Your task to perform on an android device: Open the calendar app, open the side menu, and click the "Day" option Image 0: 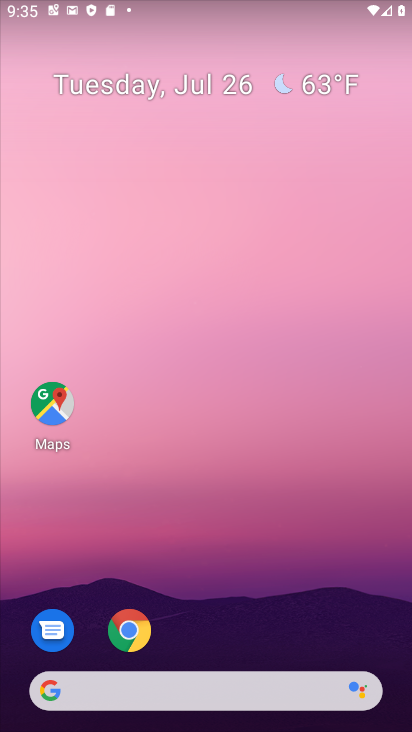
Step 0: drag from (210, 647) to (234, 28)
Your task to perform on an android device: Open the calendar app, open the side menu, and click the "Day" option Image 1: 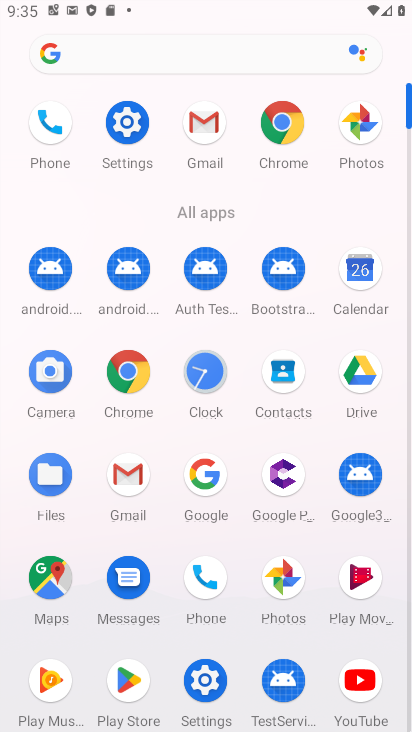
Step 1: click (359, 264)
Your task to perform on an android device: Open the calendar app, open the side menu, and click the "Day" option Image 2: 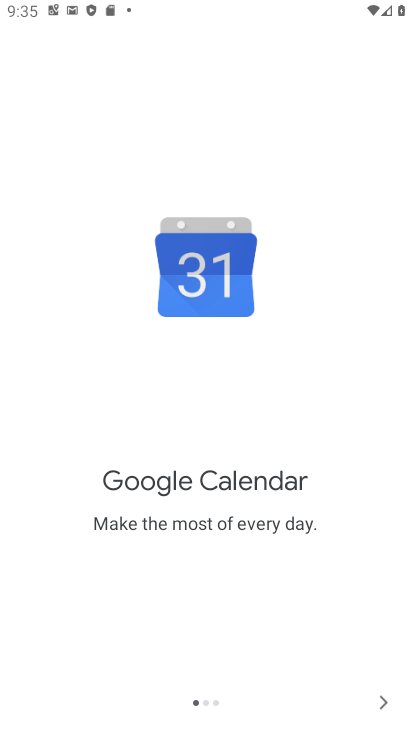
Step 2: click (377, 698)
Your task to perform on an android device: Open the calendar app, open the side menu, and click the "Day" option Image 3: 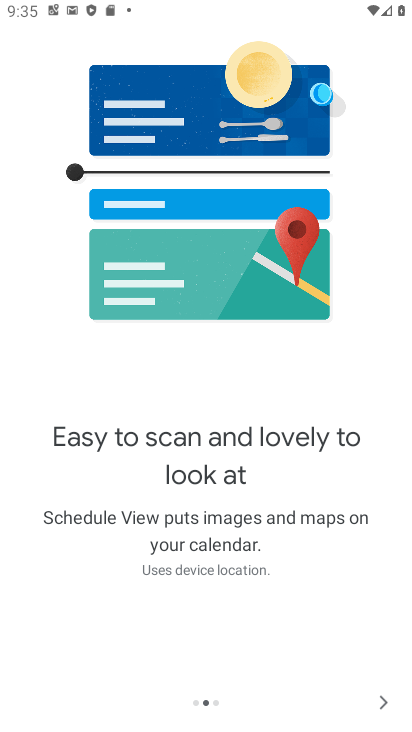
Step 3: click (377, 698)
Your task to perform on an android device: Open the calendar app, open the side menu, and click the "Day" option Image 4: 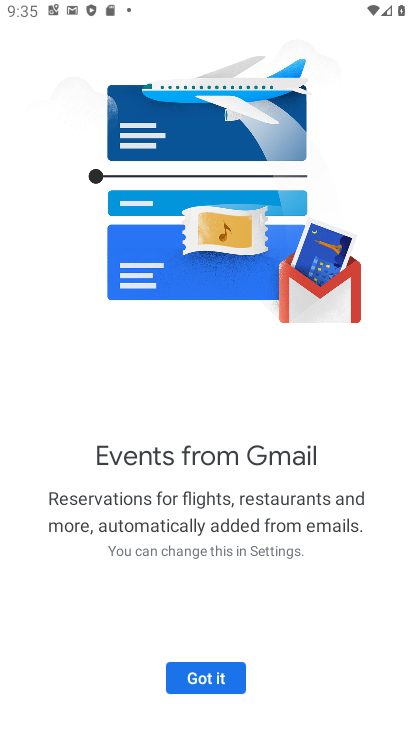
Step 4: click (210, 673)
Your task to perform on an android device: Open the calendar app, open the side menu, and click the "Day" option Image 5: 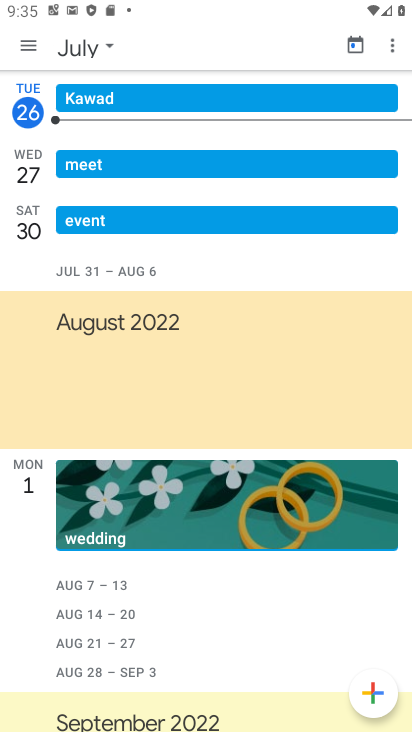
Step 5: click (31, 44)
Your task to perform on an android device: Open the calendar app, open the side menu, and click the "Day" option Image 6: 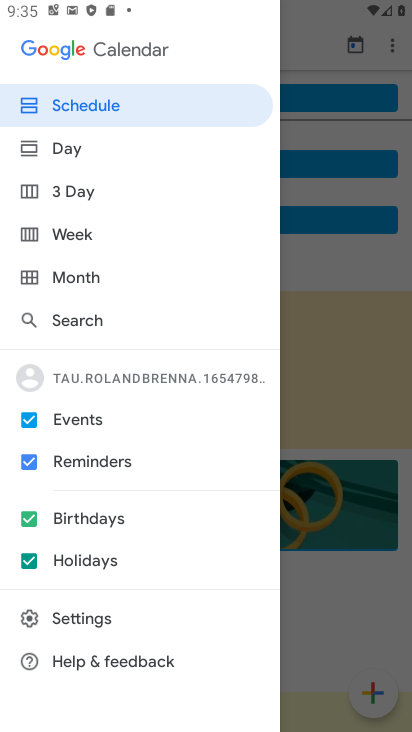
Step 6: click (86, 140)
Your task to perform on an android device: Open the calendar app, open the side menu, and click the "Day" option Image 7: 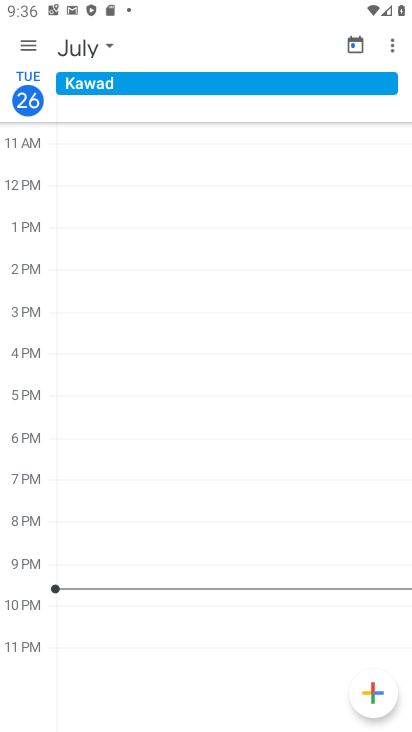
Step 7: task complete